Your task to perform on an android device: install app "Google Translate" Image 0: 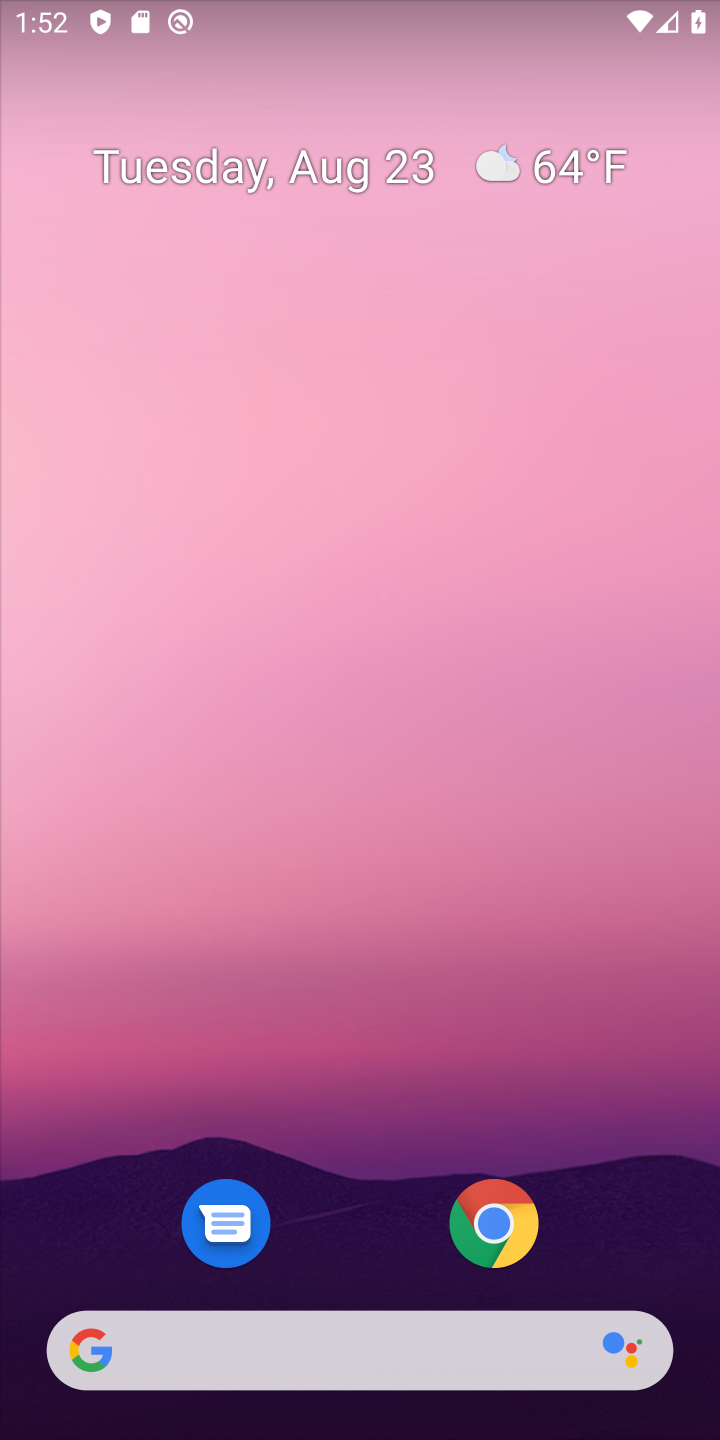
Step 0: drag from (406, 1083) to (581, 160)
Your task to perform on an android device: install app "Google Translate" Image 1: 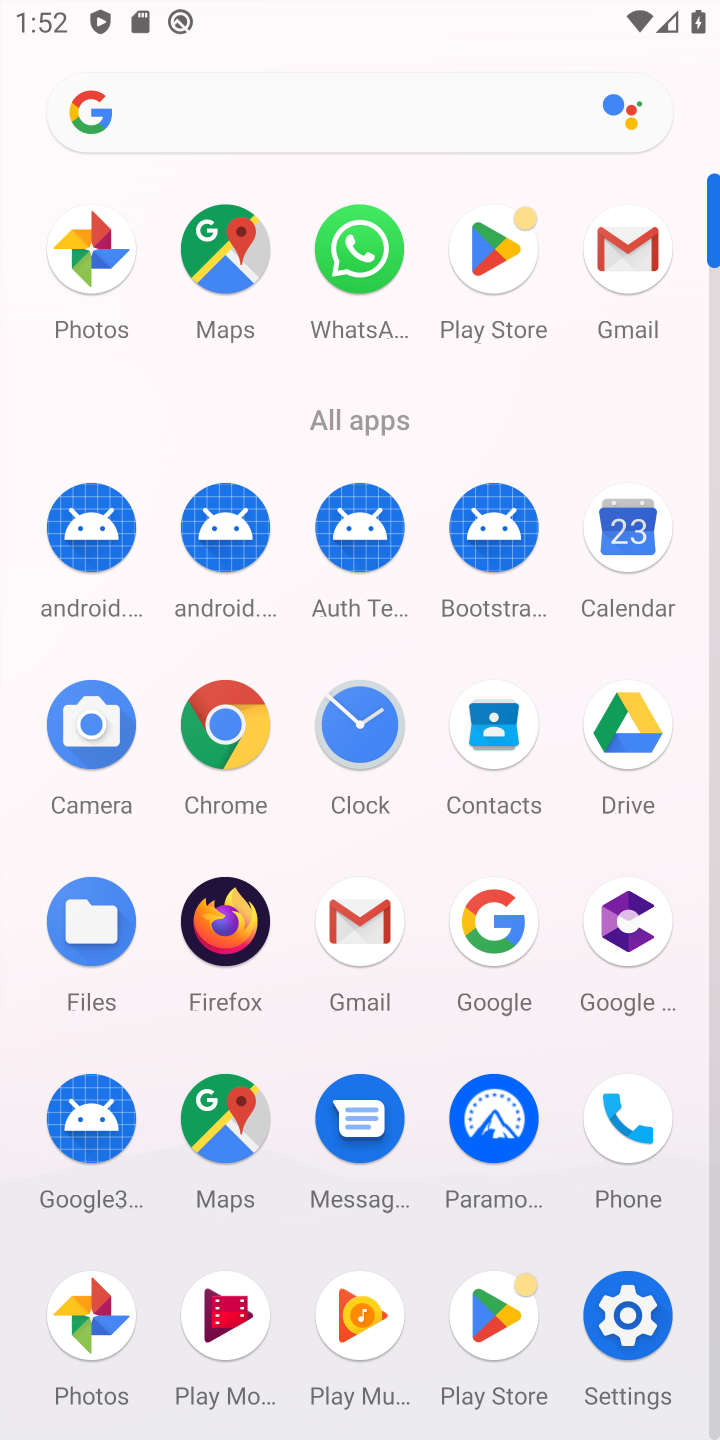
Step 1: click (494, 247)
Your task to perform on an android device: install app "Google Translate" Image 2: 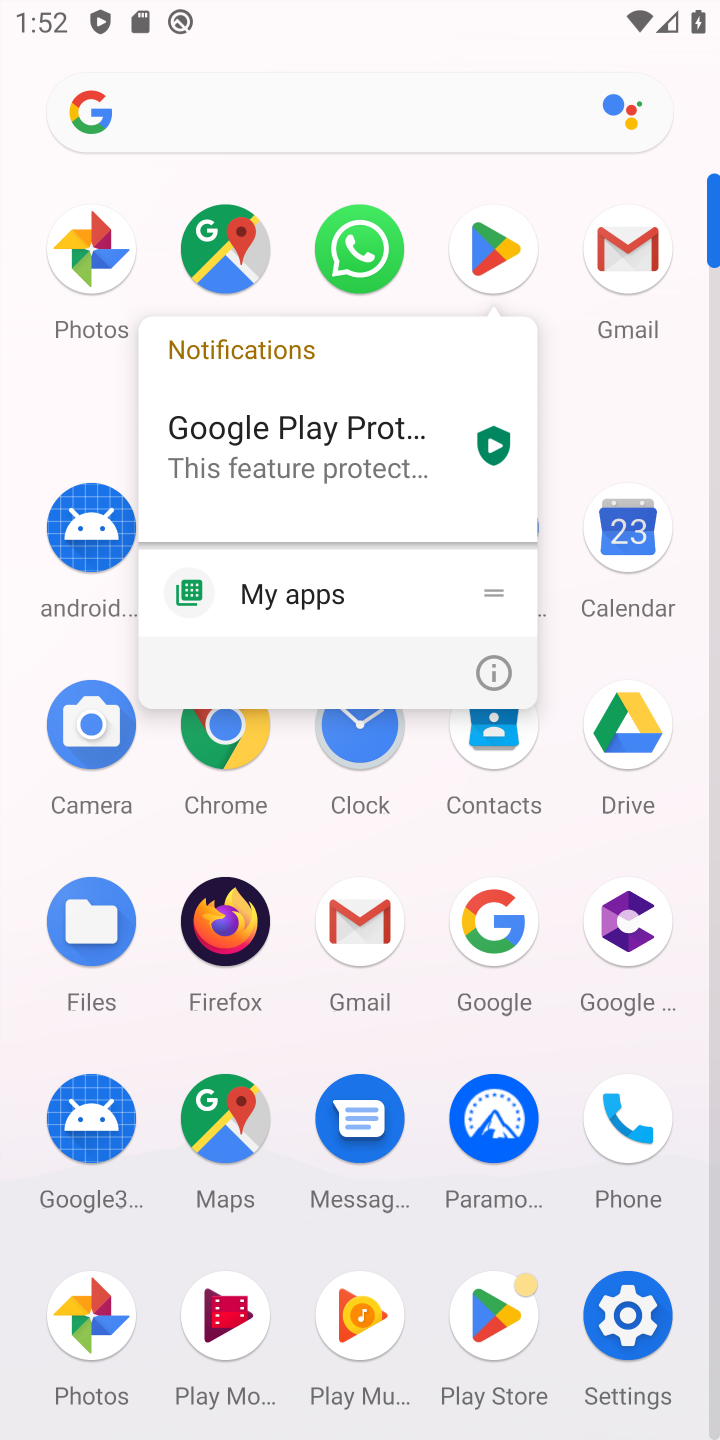
Step 2: click (480, 244)
Your task to perform on an android device: install app "Google Translate" Image 3: 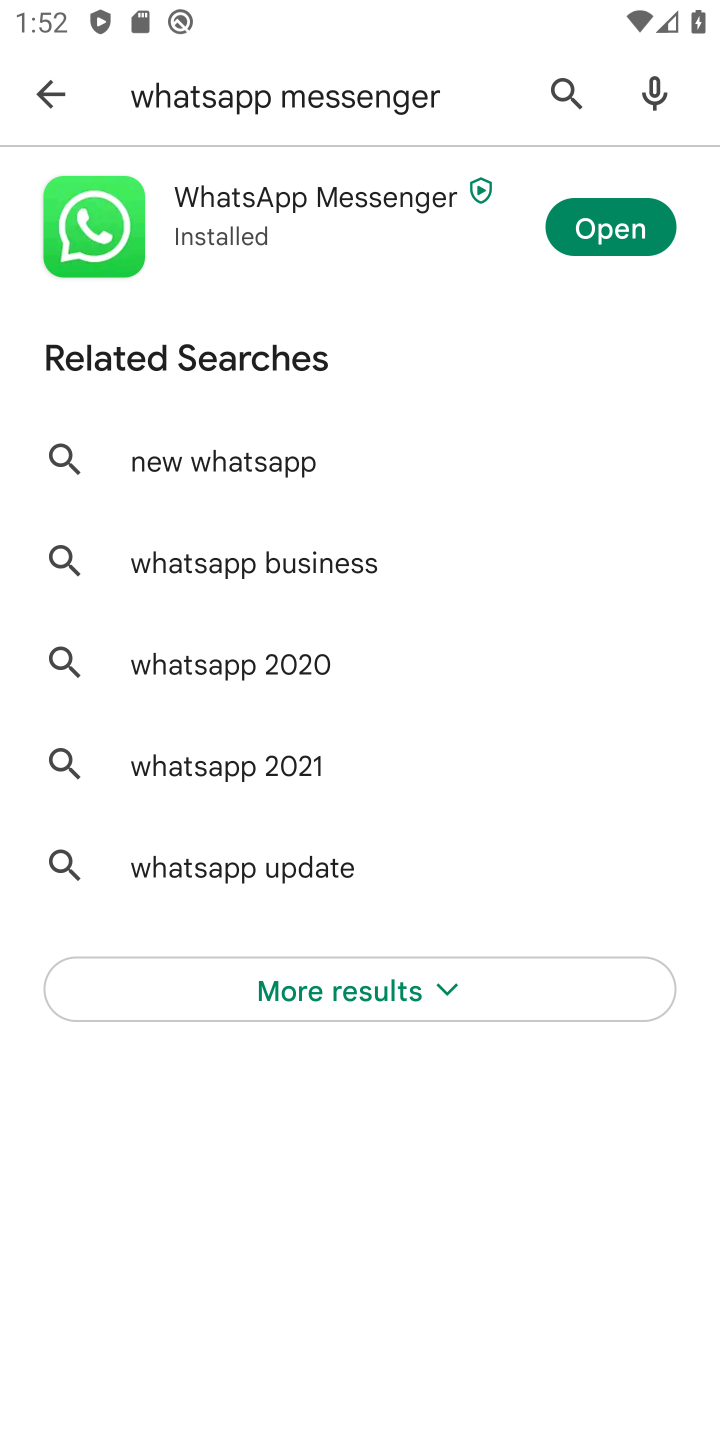
Step 3: click (534, 87)
Your task to perform on an android device: install app "Google Translate" Image 4: 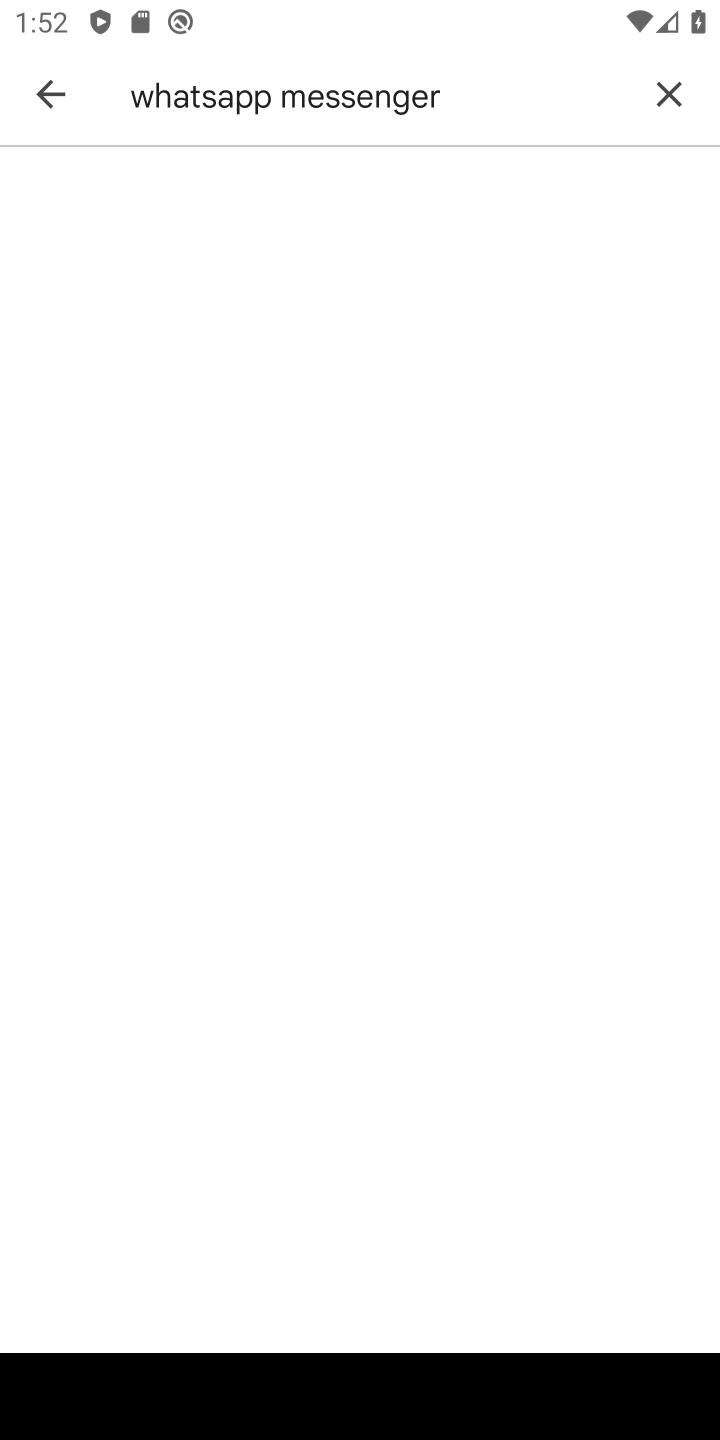
Step 4: click (671, 93)
Your task to perform on an android device: install app "Google Translate" Image 5: 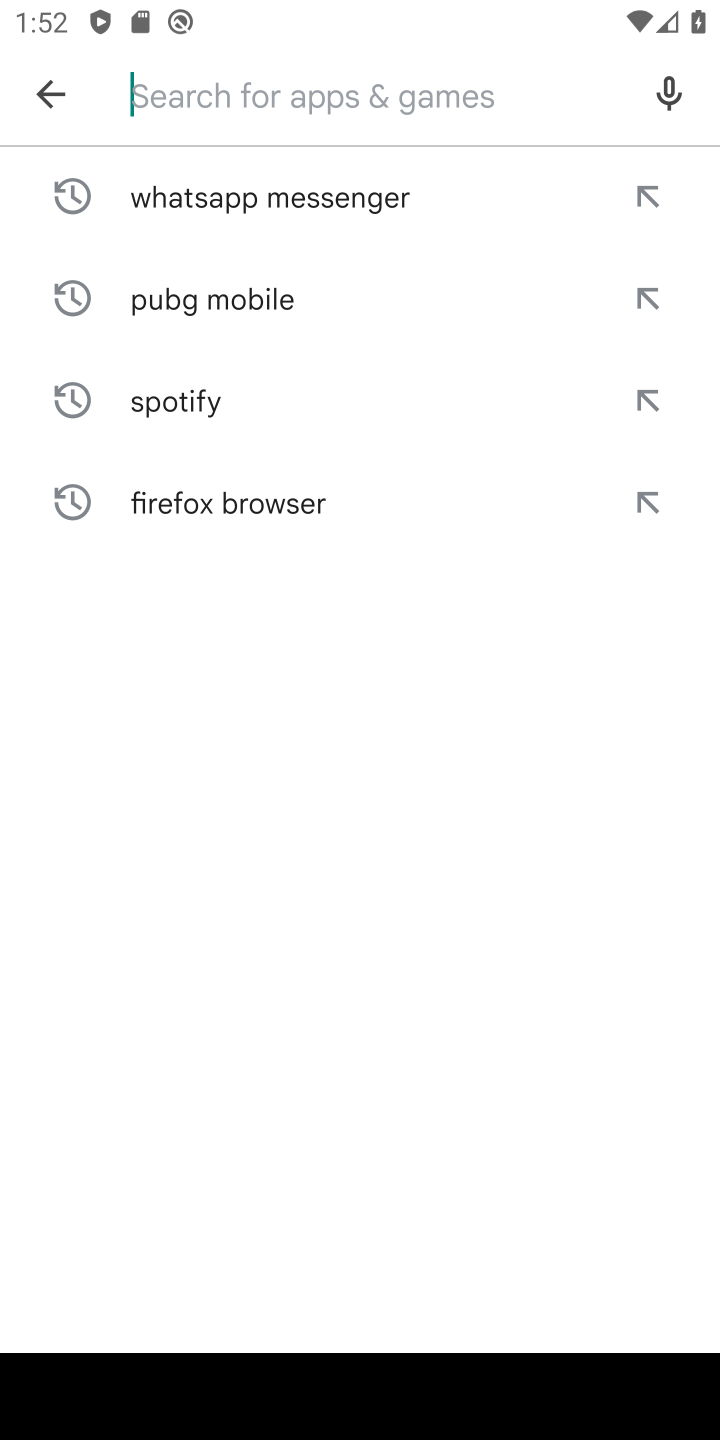
Step 5: click (262, 108)
Your task to perform on an android device: install app "Google Translate" Image 6: 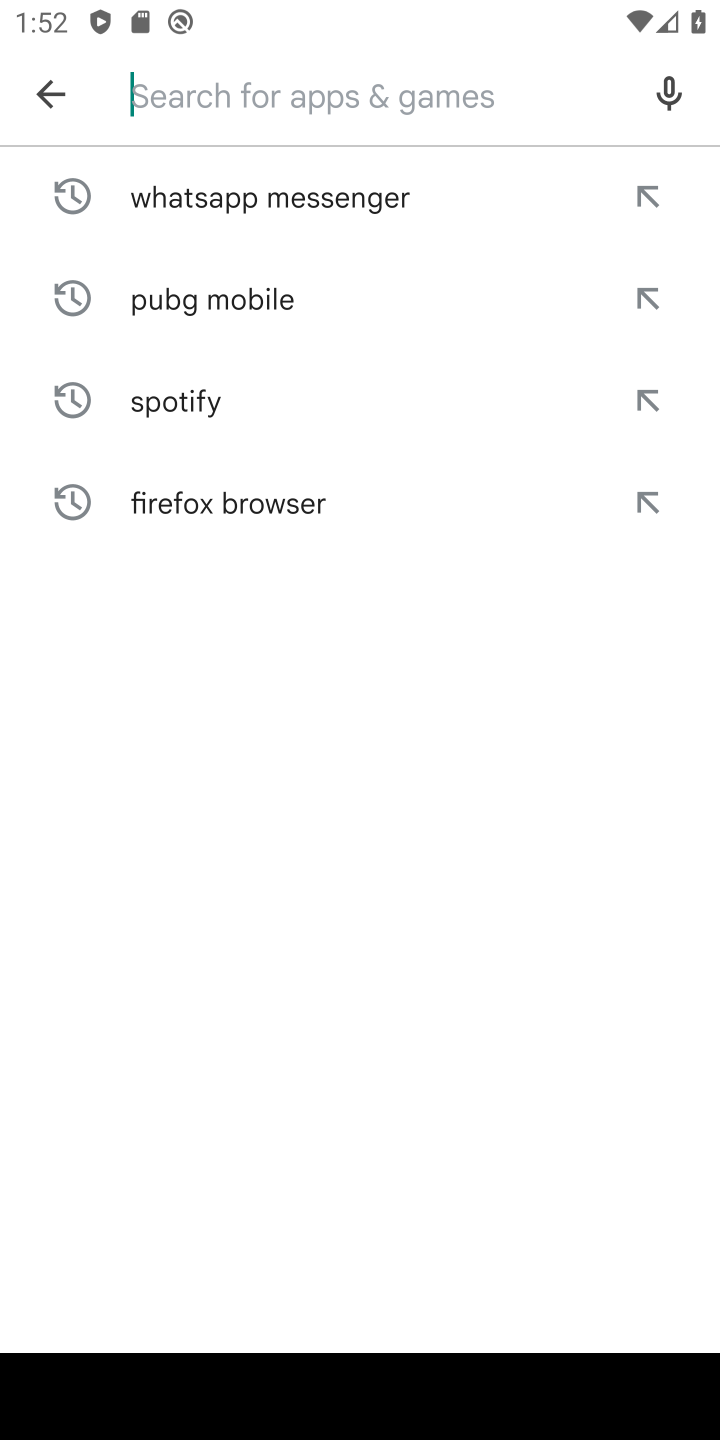
Step 6: type "Google Translate"
Your task to perform on an android device: install app "Google Translate" Image 7: 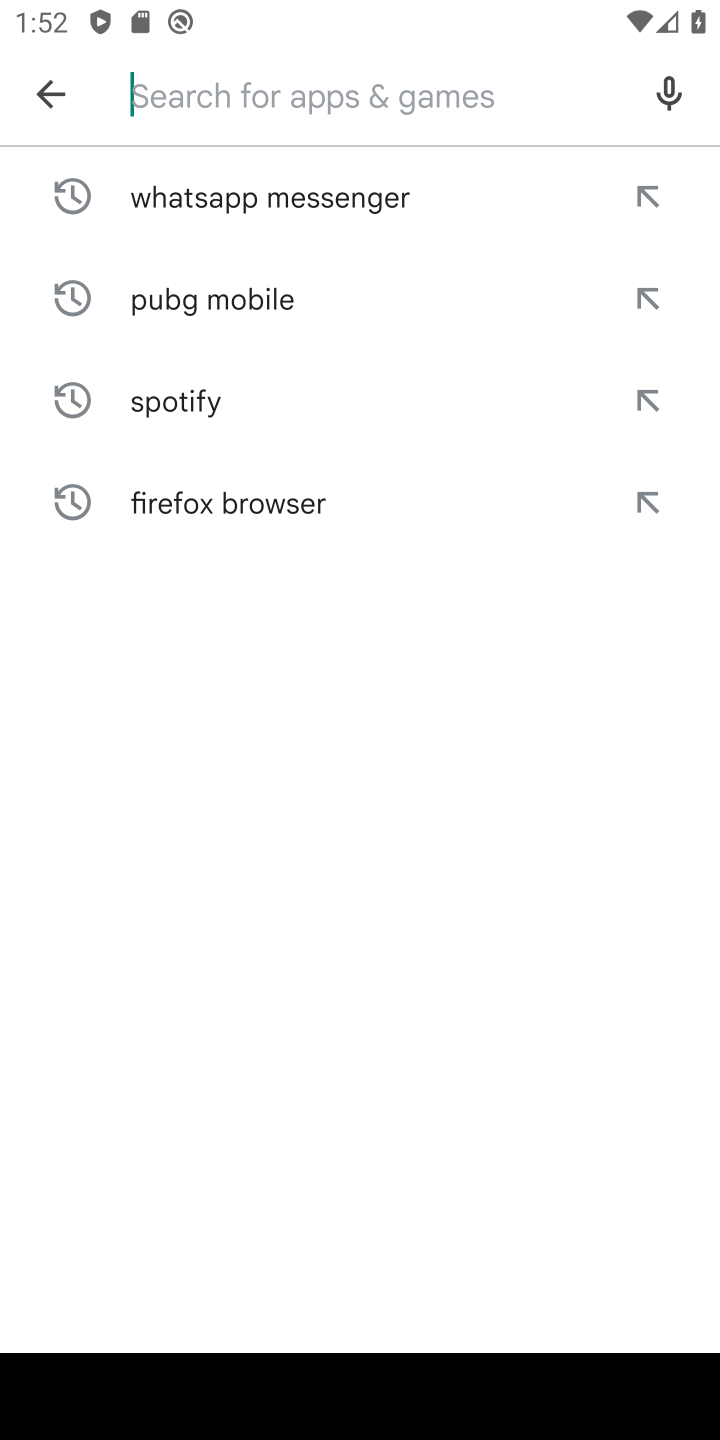
Step 7: click (237, 978)
Your task to perform on an android device: install app "Google Translate" Image 8: 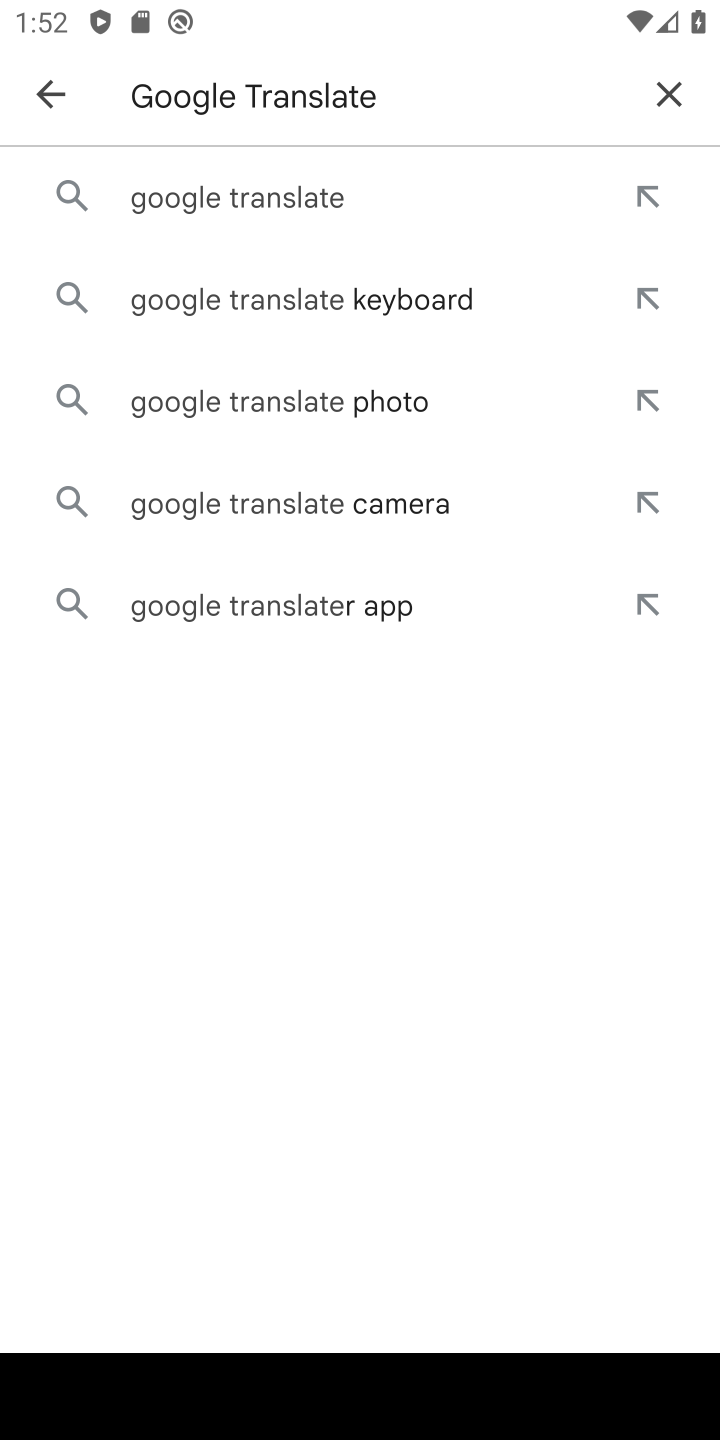
Step 8: click (228, 190)
Your task to perform on an android device: install app "Google Translate" Image 9: 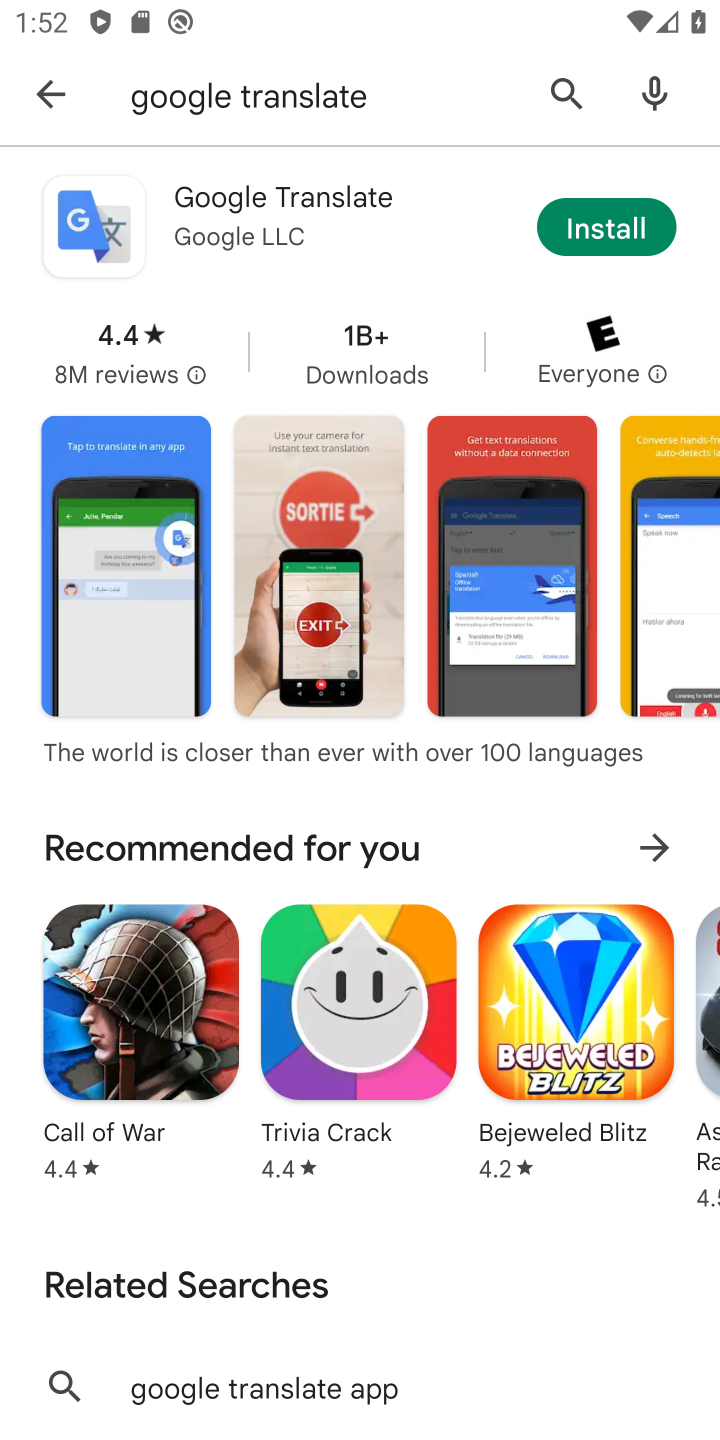
Step 9: click (617, 231)
Your task to perform on an android device: install app "Google Translate" Image 10: 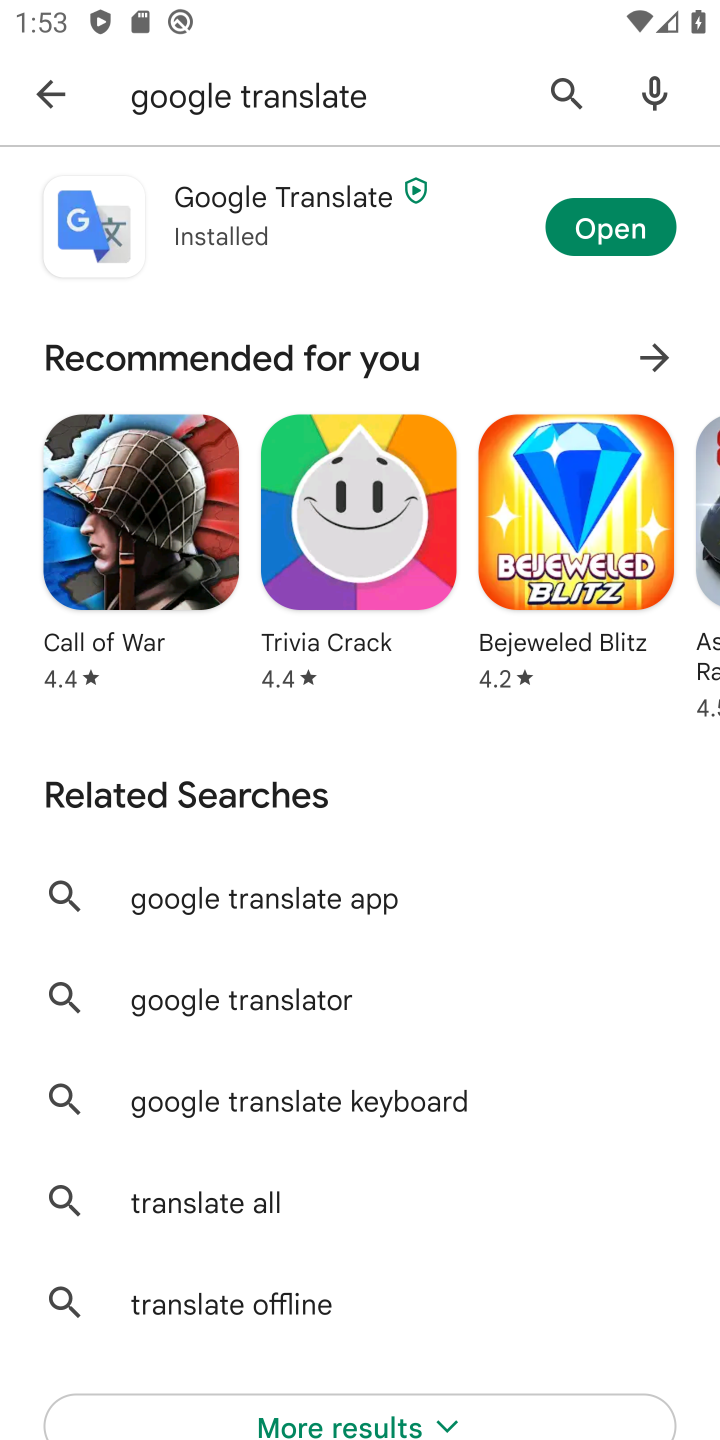
Step 10: click (596, 231)
Your task to perform on an android device: install app "Google Translate" Image 11: 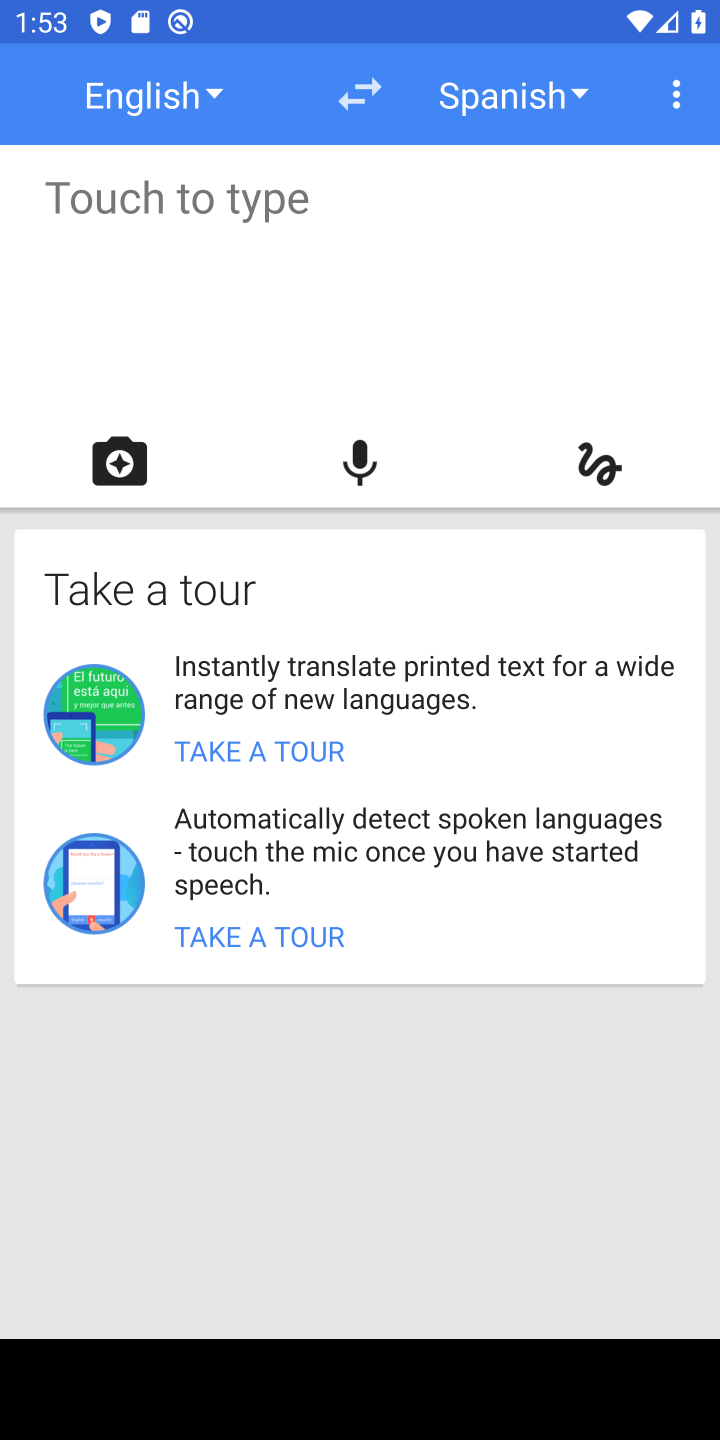
Step 11: task complete